Your task to perform on an android device: Show me popular games on the Play Store Image 0: 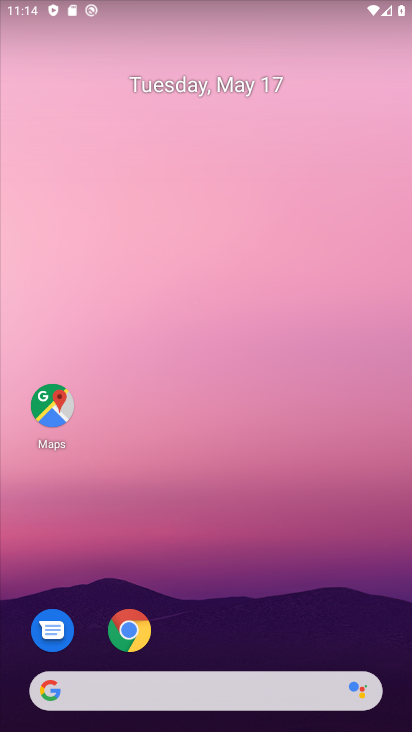
Step 0: drag from (286, 619) to (314, 79)
Your task to perform on an android device: Show me popular games on the Play Store Image 1: 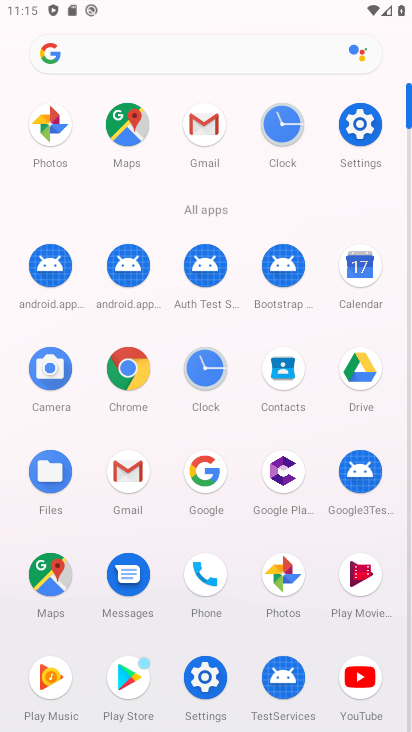
Step 1: click (135, 685)
Your task to perform on an android device: Show me popular games on the Play Store Image 2: 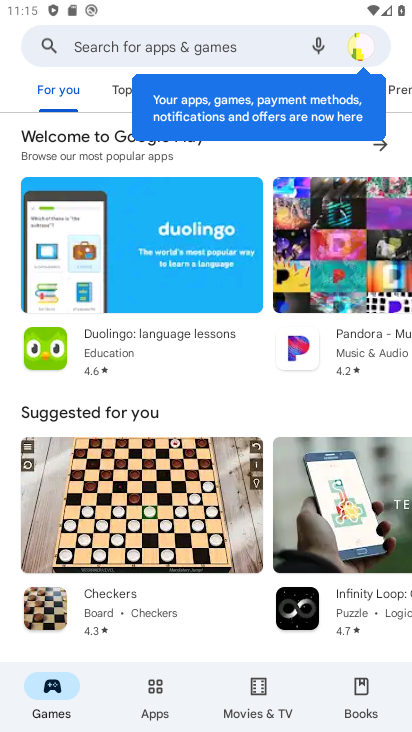
Step 2: click (208, 156)
Your task to perform on an android device: Show me popular games on the Play Store Image 3: 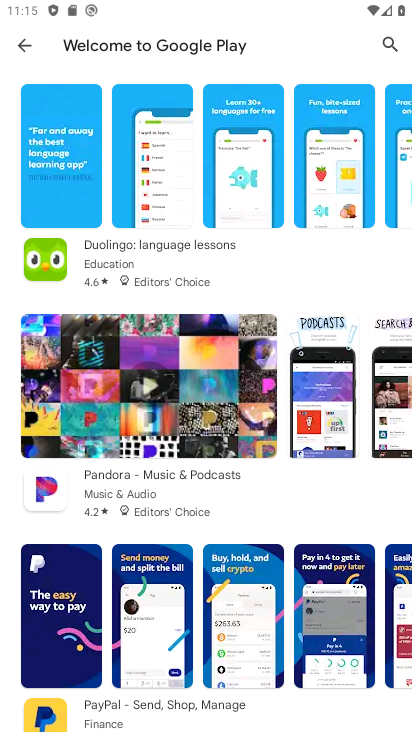
Step 3: task complete